Your task to perform on an android device: turn on notifications settings in the gmail app Image 0: 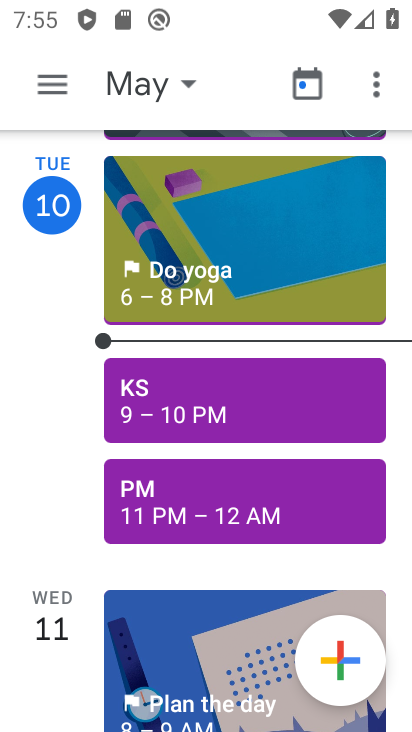
Step 0: press home button
Your task to perform on an android device: turn on notifications settings in the gmail app Image 1: 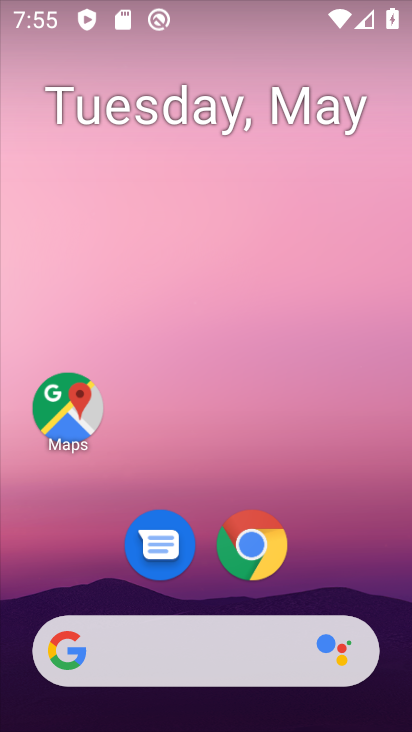
Step 1: drag from (195, 589) to (172, 190)
Your task to perform on an android device: turn on notifications settings in the gmail app Image 2: 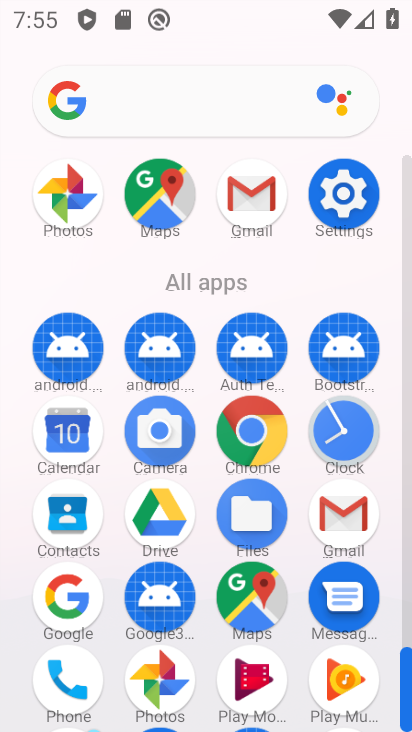
Step 2: click (228, 191)
Your task to perform on an android device: turn on notifications settings in the gmail app Image 3: 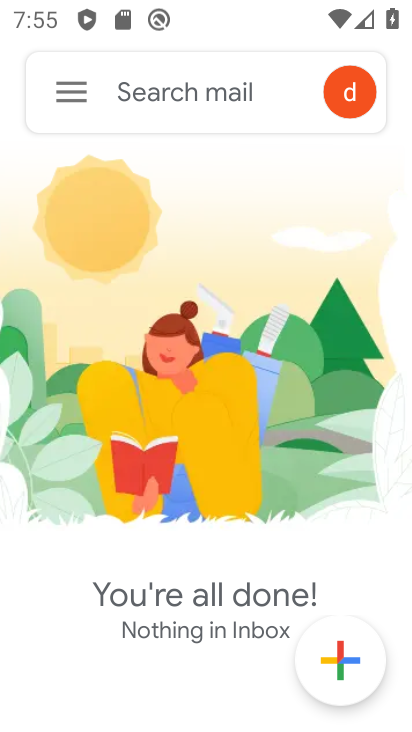
Step 3: click (71, 101)
Your task to perform on an android device: turn on notifications settings in the gmail app Image 4: 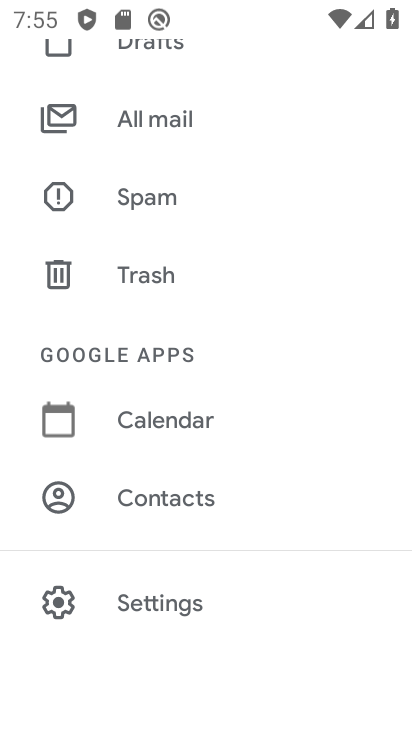
Step 4: click (201, 600)
Your task to perform on an android device: turn on notifications settings in the gmail app Image 5: 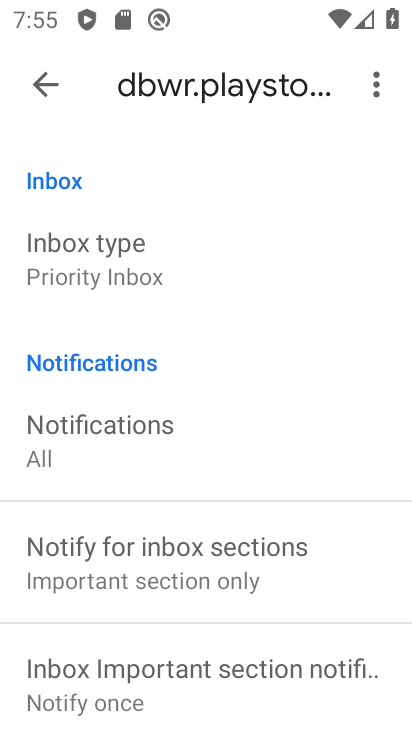
Step 5: drag from (188, 567) to (192, 337)
Your task to perform on an android device: turn on notifications settings in the gmail app Image 6: 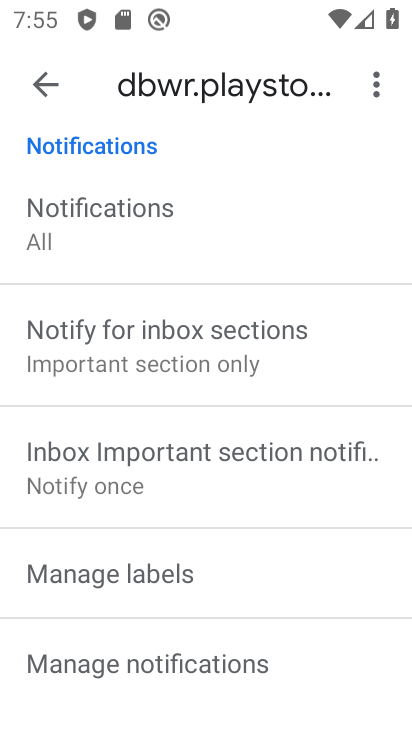
Step 6: click (260, 669)
Your task to perform on an android device: turn on notifications settings in the gmail app Image 7: 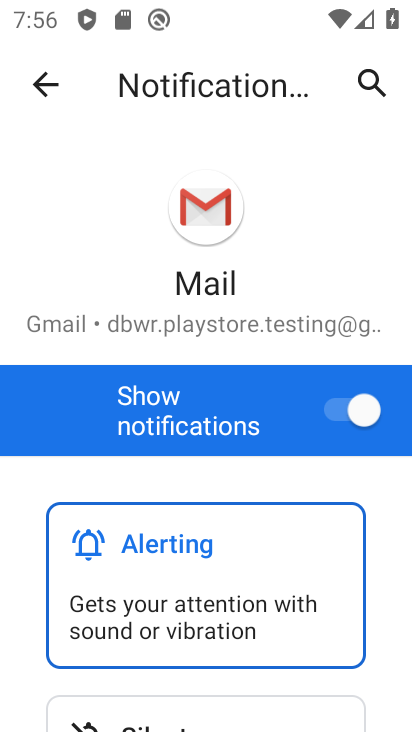
Step 7: task complete